Your task to perform on an android device: turn off airplane mode Image 0: 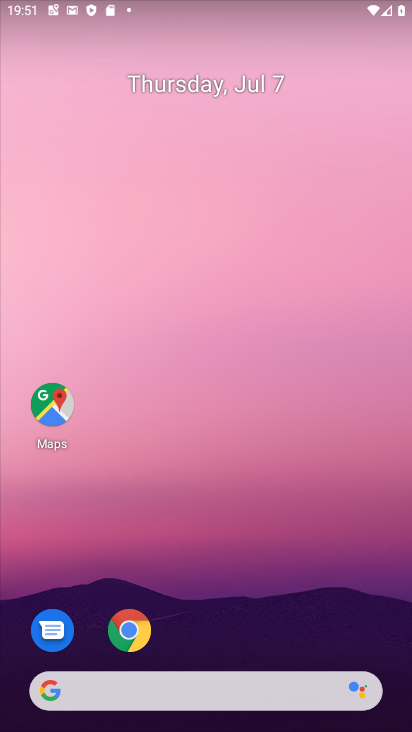
Step 0: drag from (236, 547) to (242, 234)
Your task to perform on an android device: turn off airplane mode Image 1: 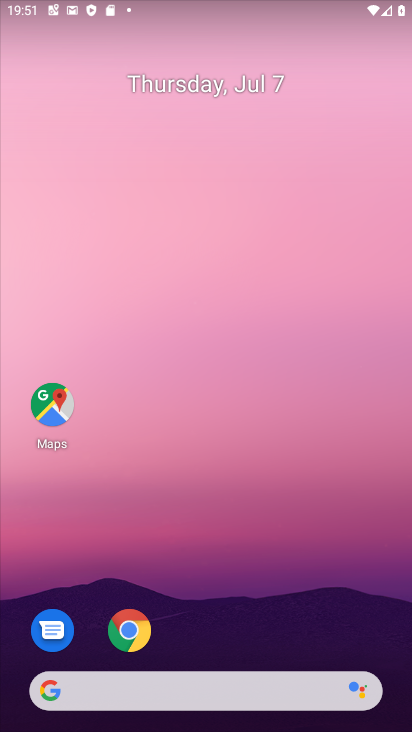
Step 1: drag from (266, 641) to (287, 36)
Your task to perform on an android device: turn off airplane mode Image 2: 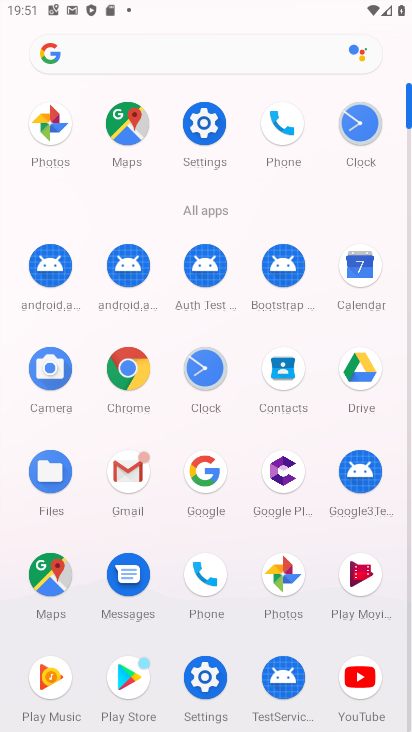
Step 2: click (208, 130)
Your task to perform on an android device: turn off airplane mode Image 3: 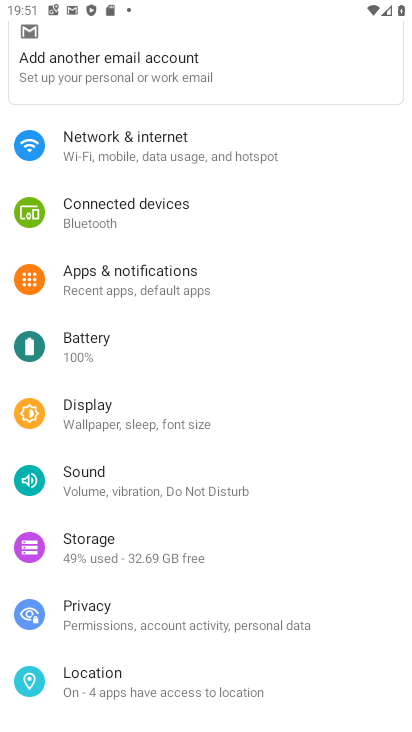
Step 3: click (226, 145)
Your task to perform on an android device: turn off airplane mode Image 4: 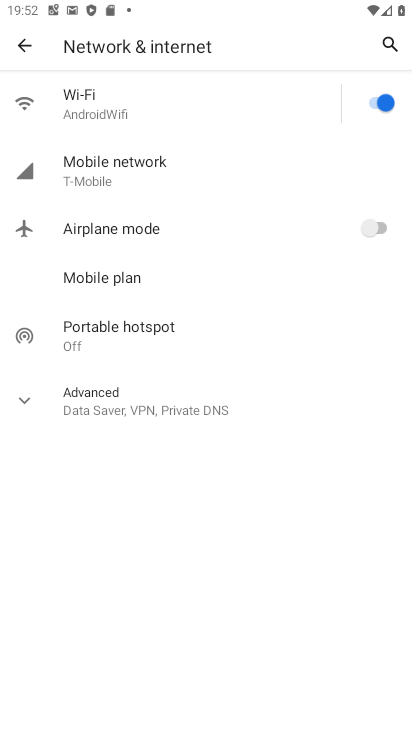
Step 4: task complete